Your task to perform on an android device: change the upload size in google photos Image 0: 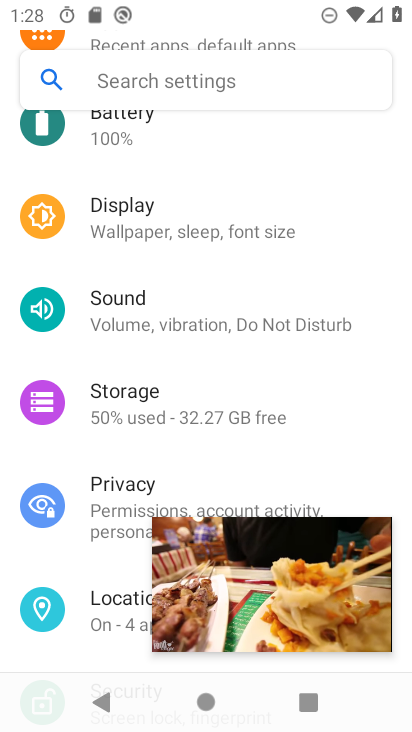
Step 0: click (260, 583)
Your task to perform on an android device: change the upload size in google photos Image 1: 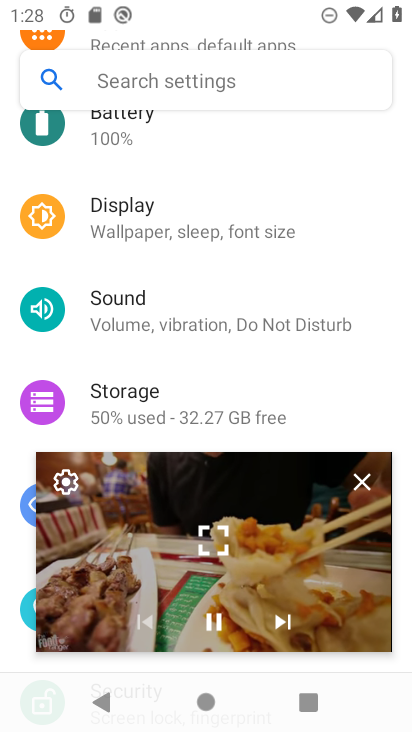
Step 1: click (218, 540)
Your task to perform on an android device: change the upload size in google photos Image 2: 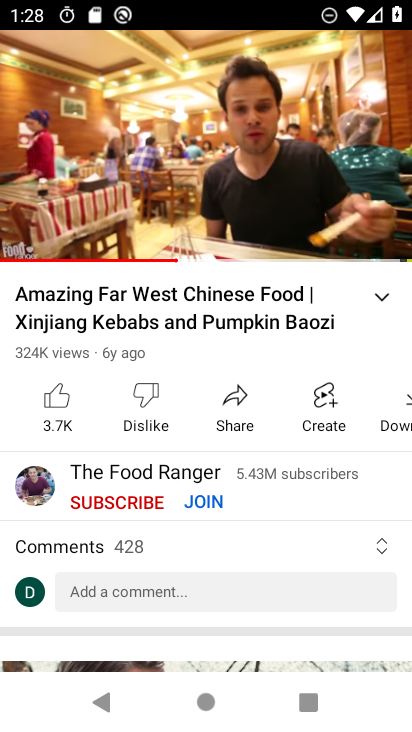
Step 2: click (202, 163)
Your task to perform on an android device: change the upload size in google photos Image 3: 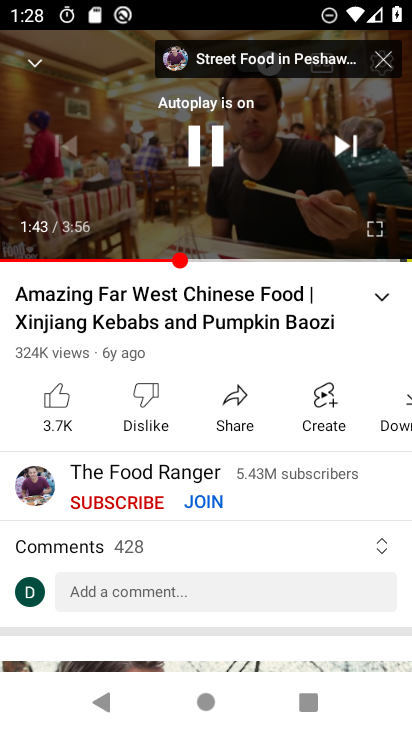
Step 3: click (217, 144)
Your task to perform on an android device: change the upload size in google photos Image 4: 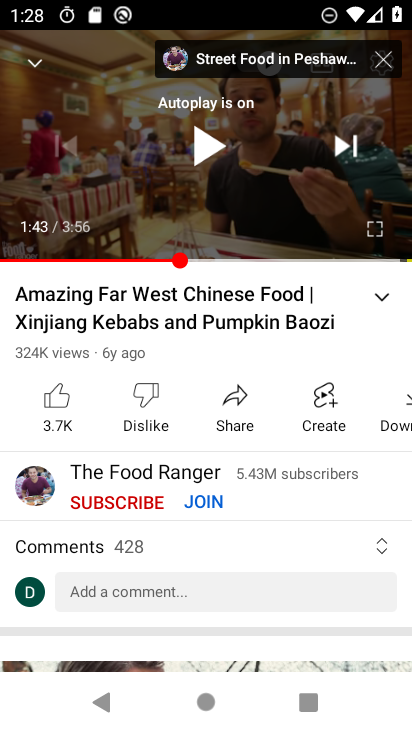
Step 4: press back button
Your task to perform on an android device: change the upload size in google photos Image 5: 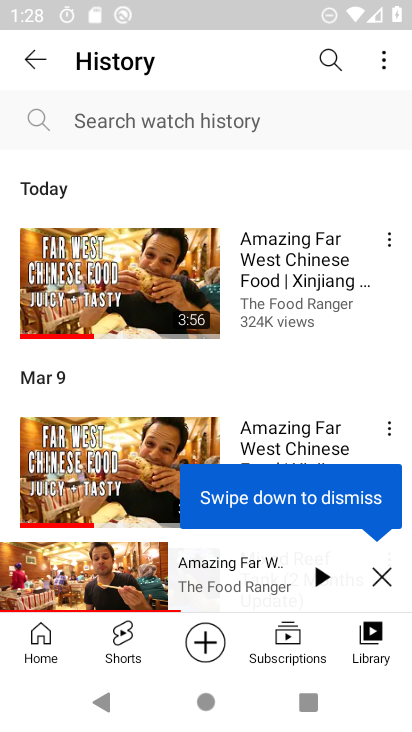
Step 5: click (391, 575)
Your task to perform on an android device: change the upload size in google photos Image 6: 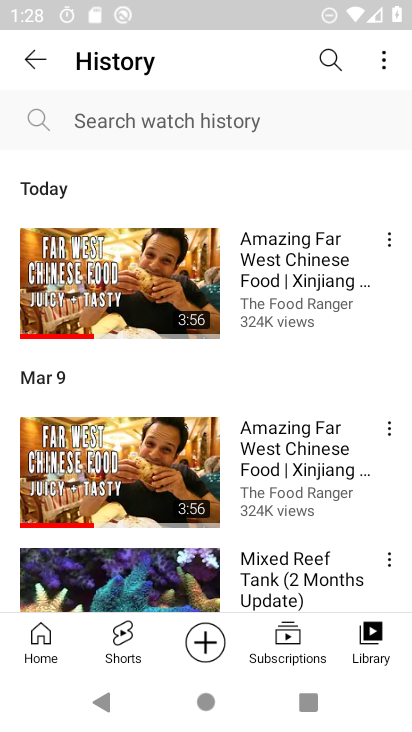
Step 6: press back button
Your task to perform on an android device: change the upload size in google photos Image 7: 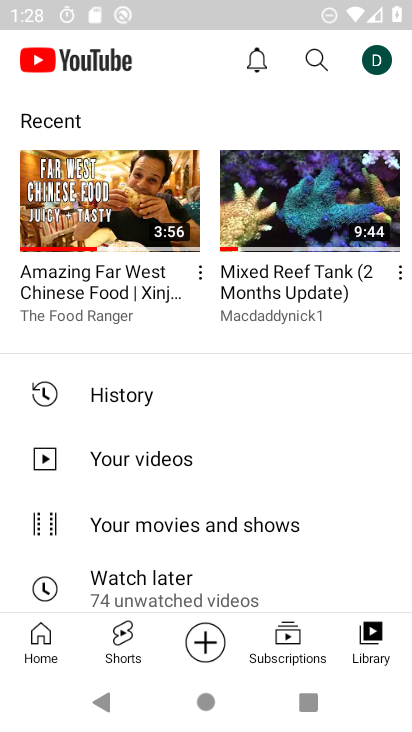
Step 7: press back button
Your task to perform on an android device: change the upload size in google photos Image 8: 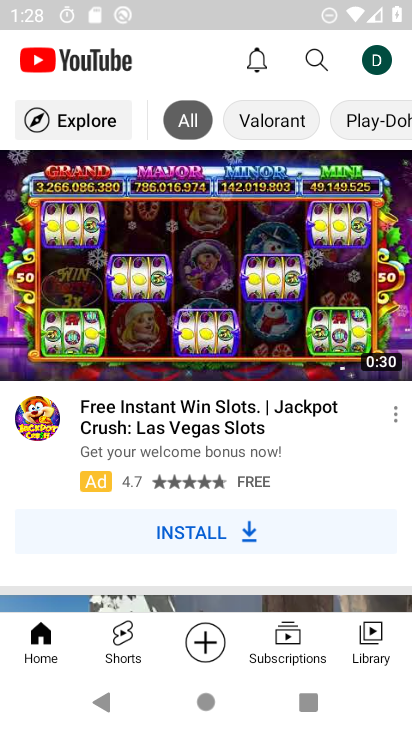
Step 8: press back button
Your task to perform on an android device: change the upload size in google photos Image 9: 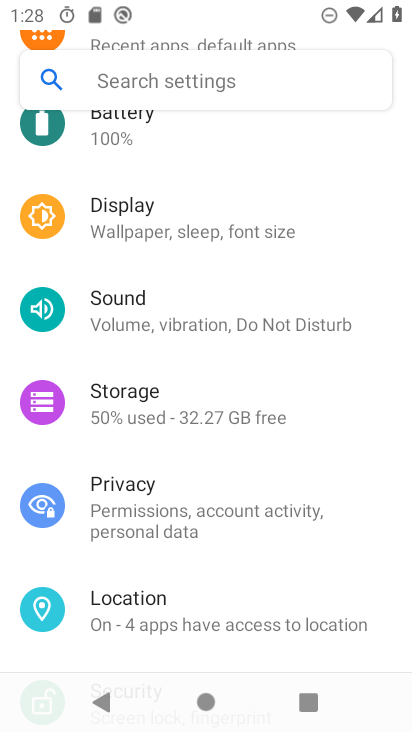
Step 9: press home button
Your task to perform on an android device: change the upload size in google photos Image 10: 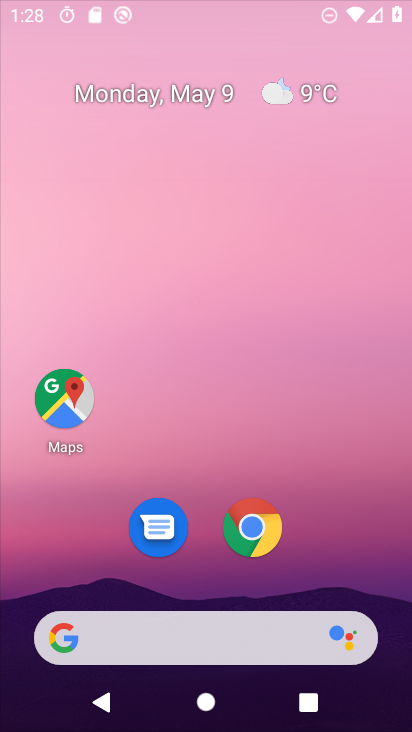
Step 10: drag from (180, 644) to (262, 65)
Your task to perform on an android device: change the upload size in google photos Image 11: 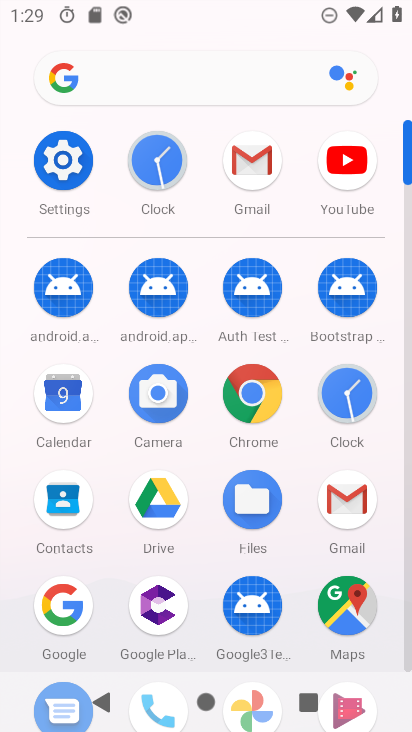
Step 11: drag from (191, 628) to (321, 123)
Your task to perform on an android device: change the upload size in google photos Image 12: 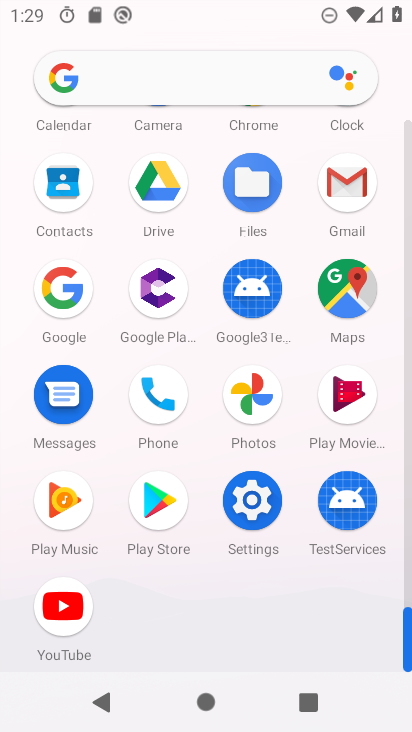
Step 12: click (255, 396)
Your task to perform on an android device: change the upload size in google photos Image 13: 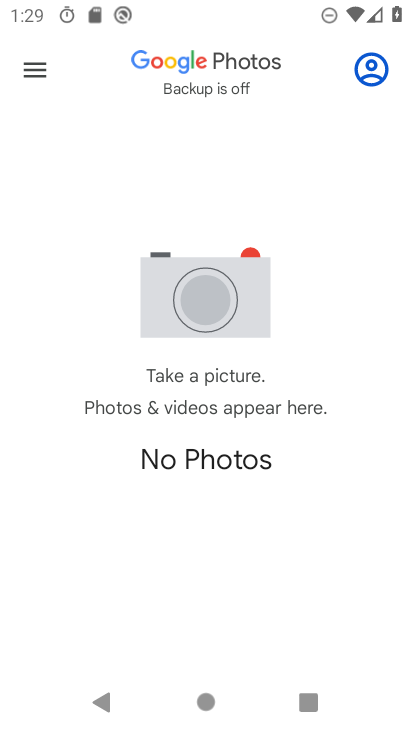
Step 13: click (23, 58)
Your task to perform on an android device: change the upload size in google photos Image 14: 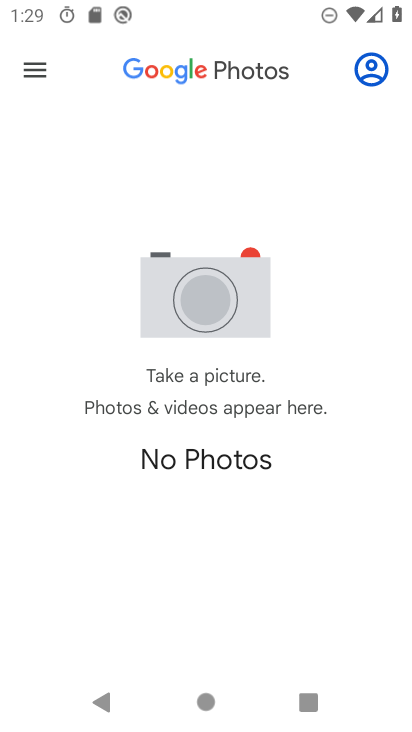
Step 14: click (41, 68)
Your task to perform on an android device: change the upload size in google photos Image 15: 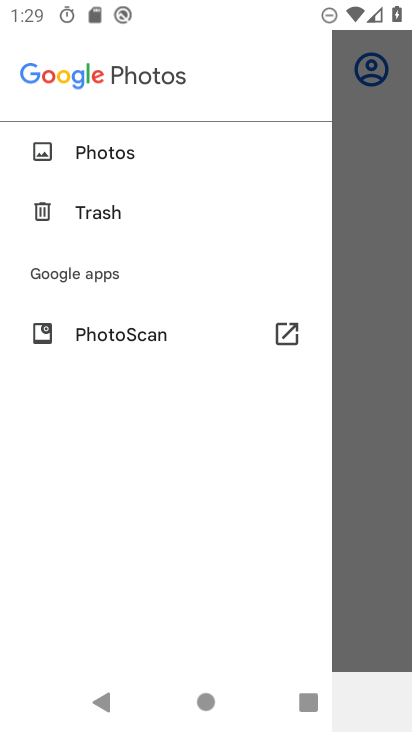
Step 15: click (367, 204)
Your task to perform on an android device: change the upload size in google photos Image 16: 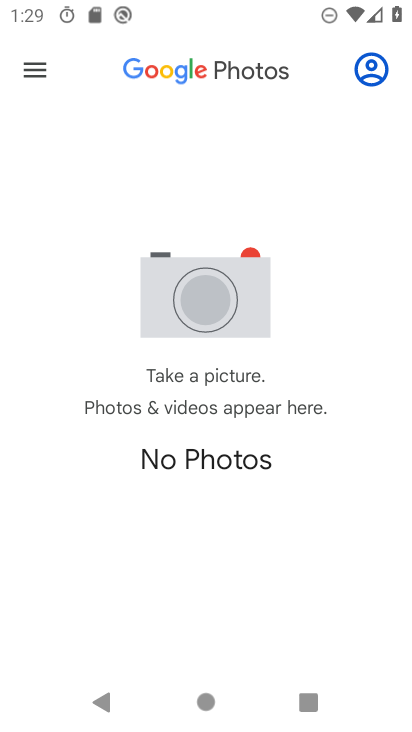
Step 16: click (387, 66)
Your task to perform on an android device: change the upload size in google photos Image 17: 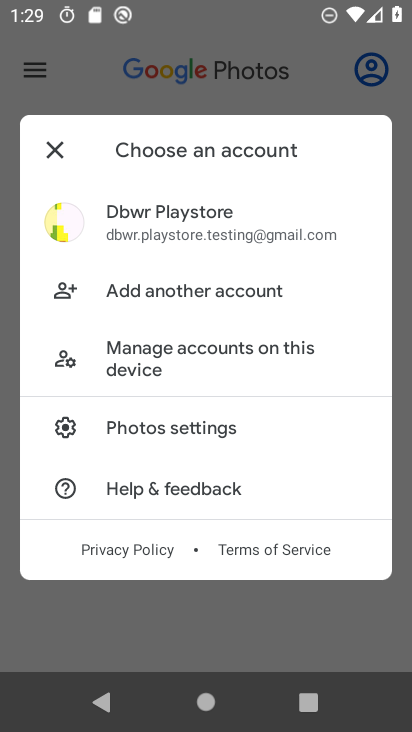
Step 17: click (214, 229)
Your task to perform on an android device: change the upload size in google photos Image 18: 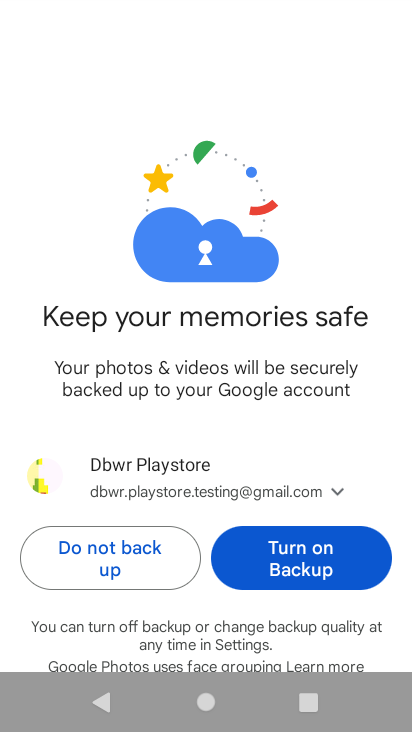
Step 18: task complete